Your task to perform on an android device: Open Wikipedia Image 0: 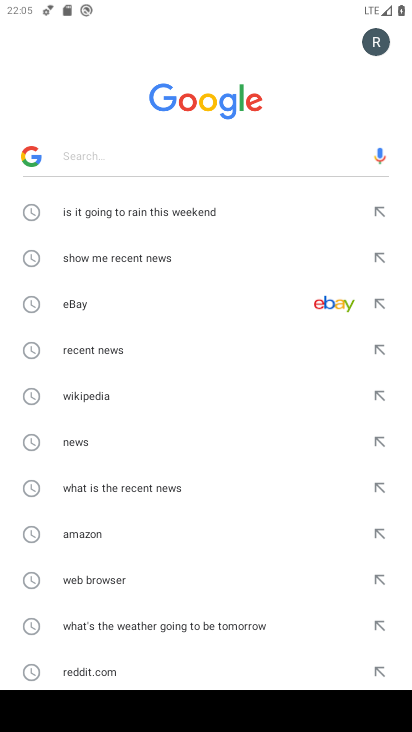
Step 0: press home button
Your task to perform on an android device: Open Wikipedia Image 1: 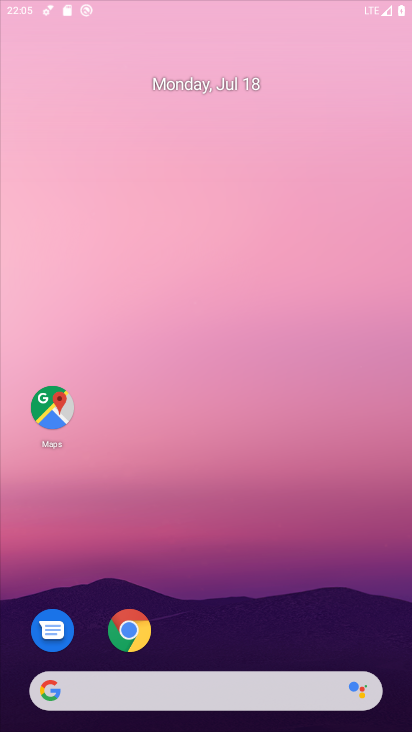
Step 1: drag from (204, 636) to (209, 220)
Your task to perform on an android device: Open Wikipedia Image 2: 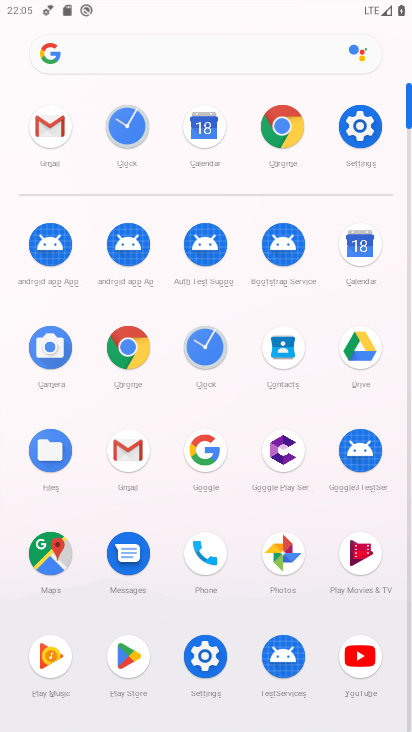
Step 2: click (272, 132)
Your task to perform on an android device: Open Wikipedia Image 3: 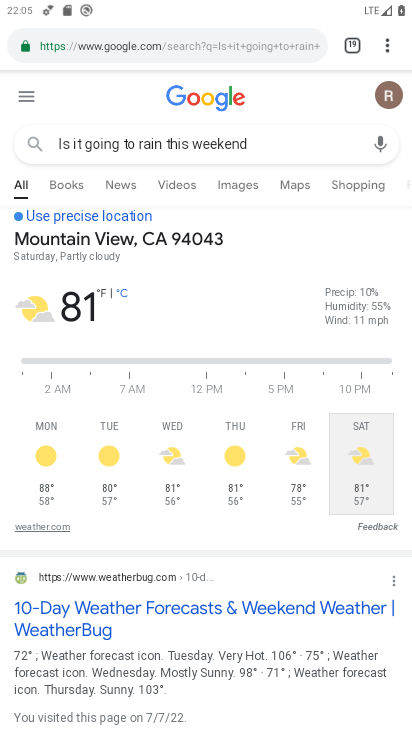
Step 3: click (392, 47)
Your task to perform on an android device: Open Wikipedia Image 4: 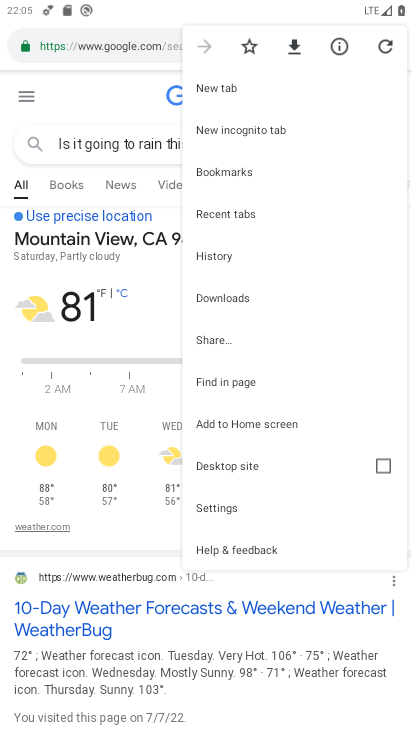
Step 4: click (228, 84)
Your task to perform on an android device: Open Wikipedia Image 5: 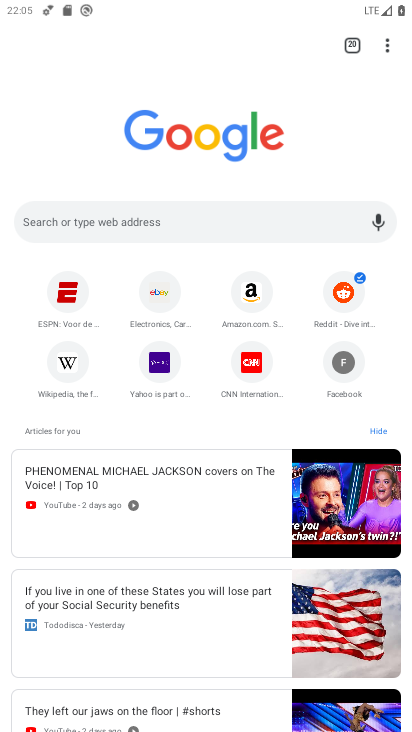
Step 5: click (80, 364)
Your task to perform on an android device: Open Wikipedia Image 6: 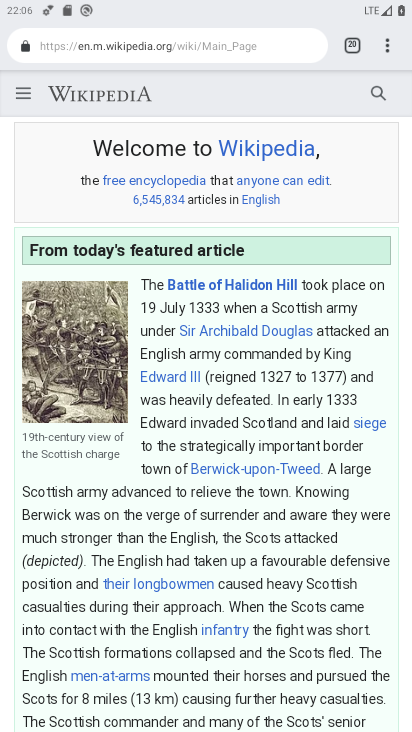
Step 6: task complete